Your task to perform on an android device: Check the weather Image 0: 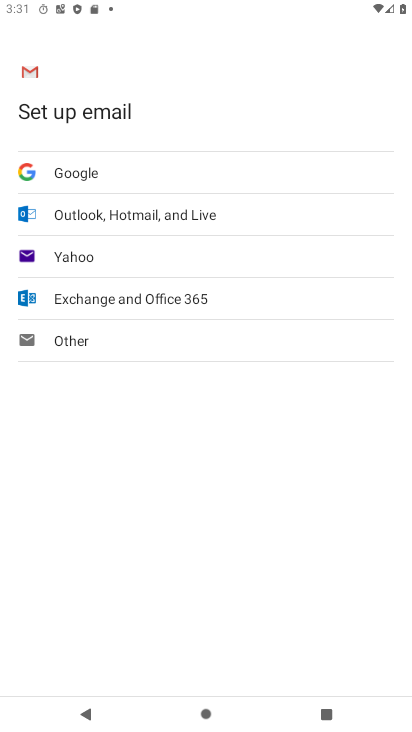
Step 0: press home button
Your task to perform on an android device: Check the weather Image 1: 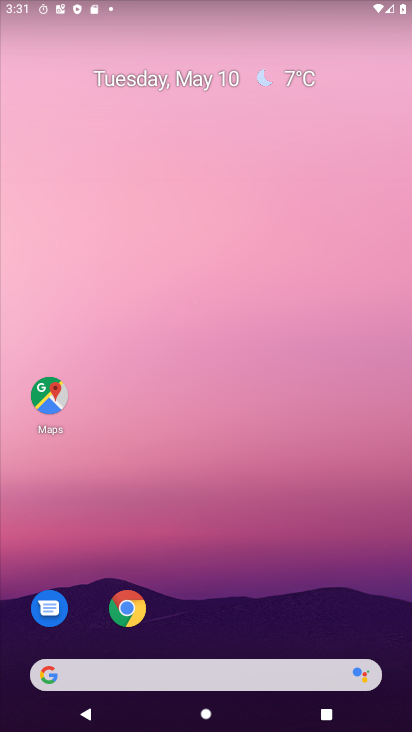
Step 1: click (288, 77)
Your task to perform on an android device: Check the weather Image 2: 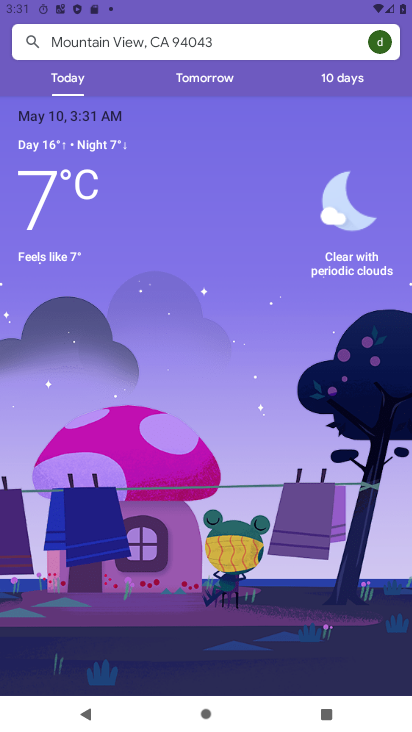
Step 2: task complete